Your task to perform on an android device: Go to sound settings Image 0: 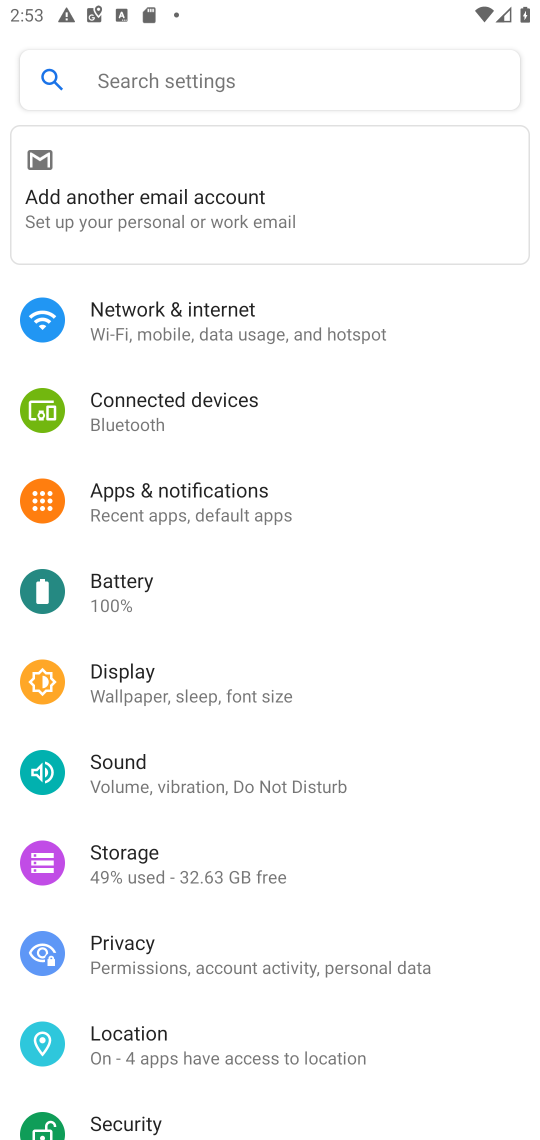
Step 0: click (117, 767)
Your task to perform on an android device: Go to sound settings Image 1: 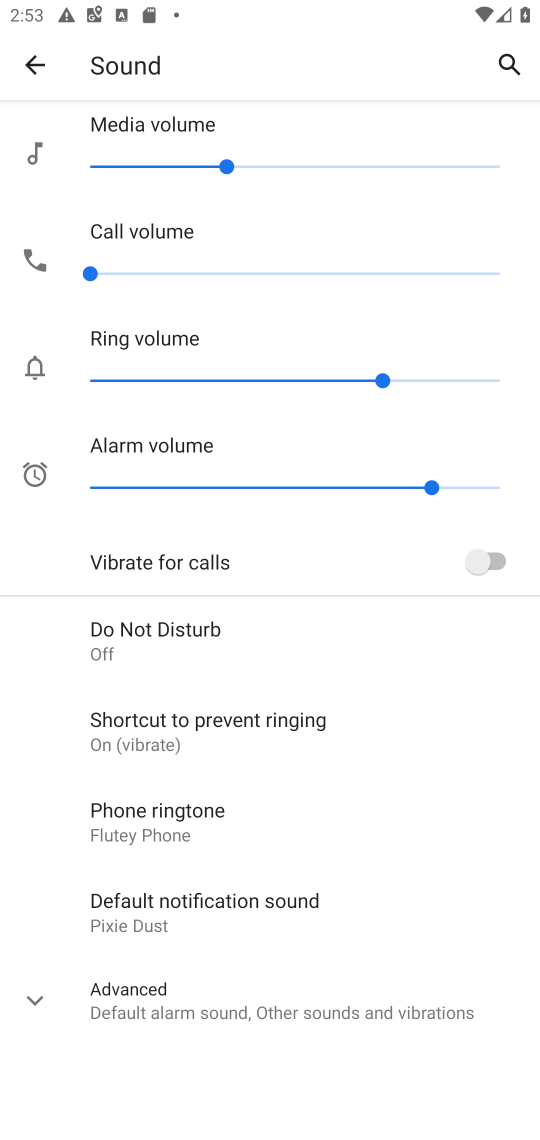
Step 1: task complete